Your task to perform on an android device: Open Yahoo.com Image 0: 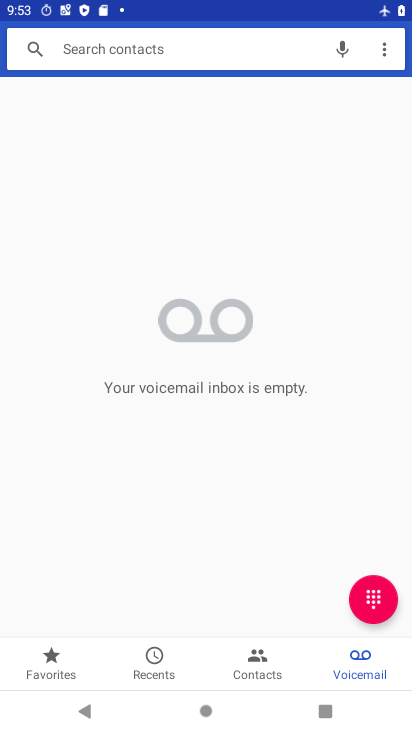
Step 0: press home button
Your task to perform on an android device: Open Yahoo.com Image 1: 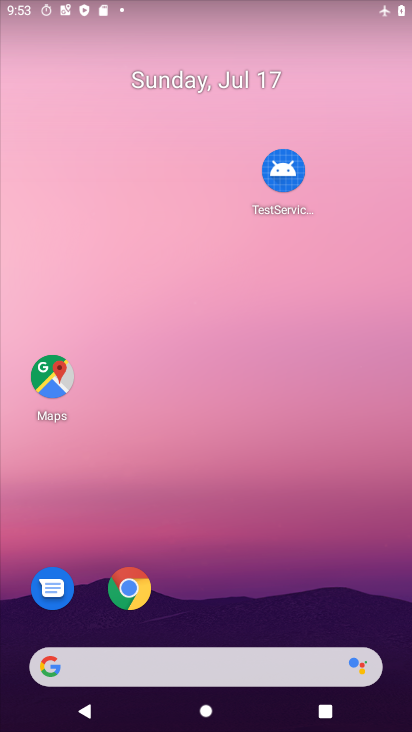
Step 1: drag from (232, 682) to (265, 256)
Your task to perform on an android device: Open Yahoo.com Image 2: 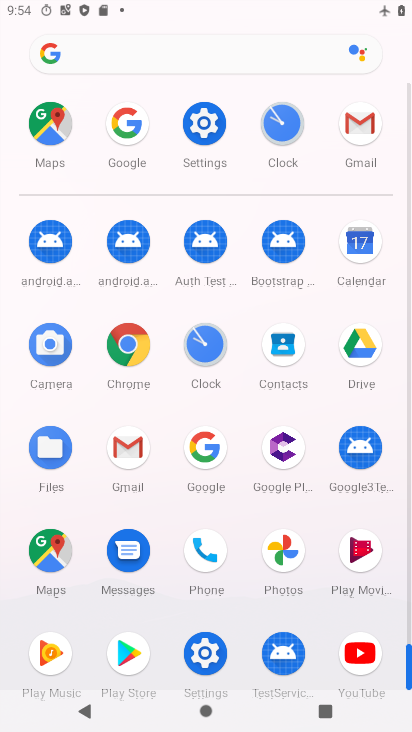
Step 2: click (124, 368)
Your task to perform on an android device: Open Yahoo.com Image 3: 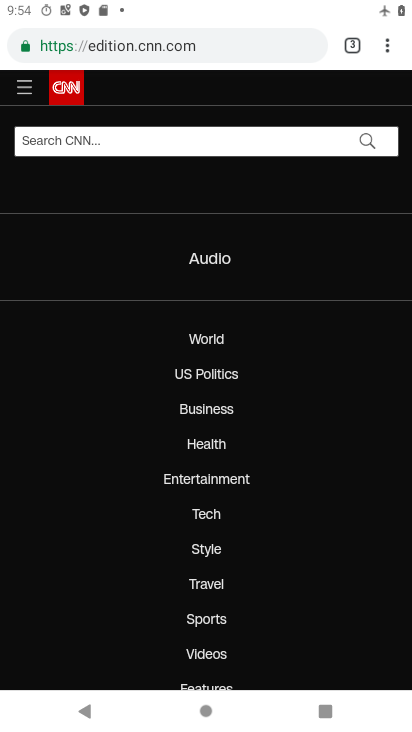
Step 3: click (225, 59)
Your task to perform on an android device: Open Yahoo.com Image 4: 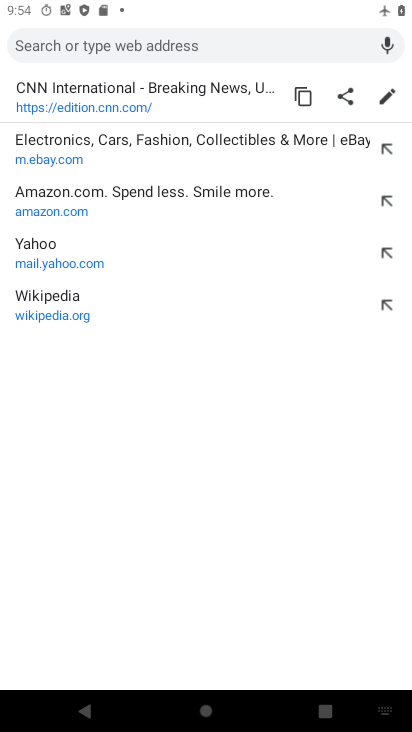
Step 4: click (158, 252)
Your task to perform on an android device: Open Yahoo.com Image 5: 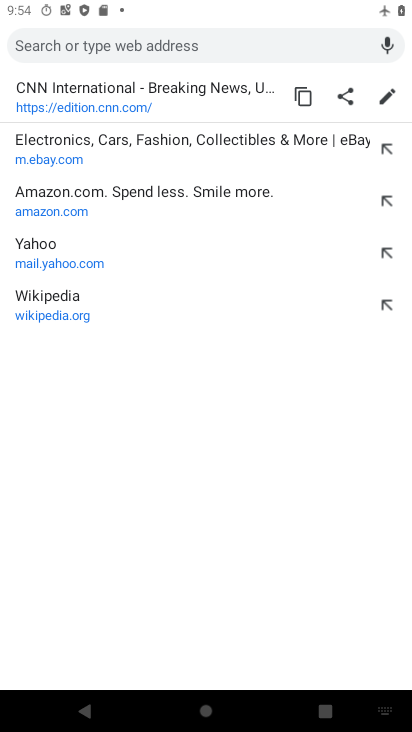
Step 5: click (112, 264)
Your task to perform on an android device: Open Yahoo.com Image 6: 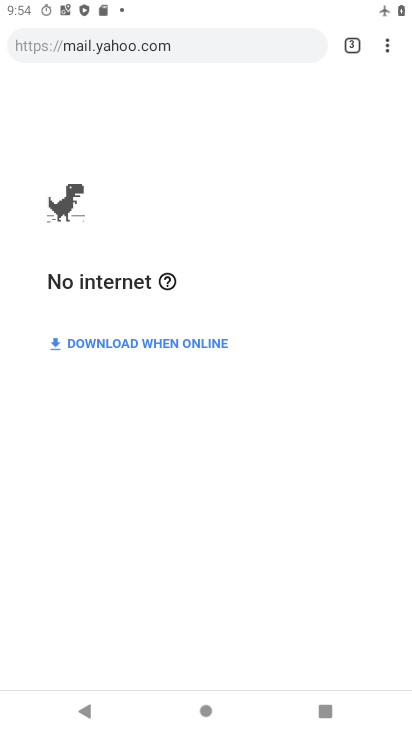
Step 6: task complete